Your task to perform on an android device: check data usage Image 0: 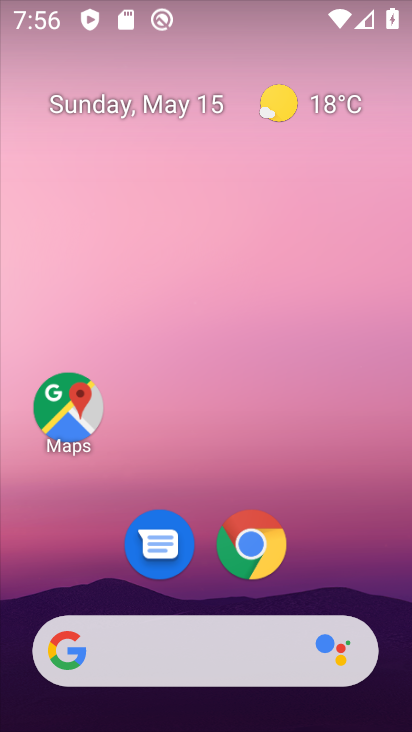
Step 0: drag from (357, 573) to (298, 98)
Your task to perform on an android device: check data usage Image 1: 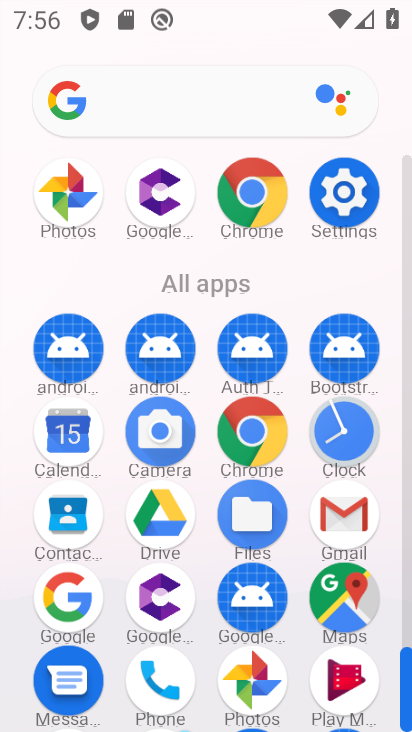
Step 1: click (317, 188)
Your task to perform on an android device: check data usage Image 2: 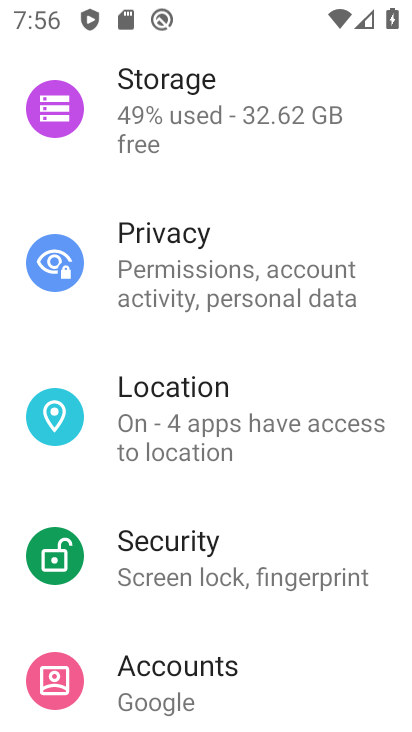
Step 2: drag from (275, 232) to (276, 540)
Your task to perform on an android device: check data usage Image 3: 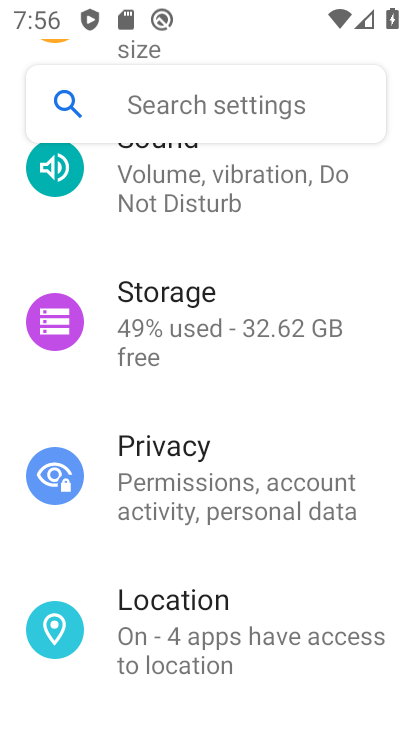
Step 3: drag from (235, 213) to (246, 623)
Your task to perform on an android device: check data usage Image 4: 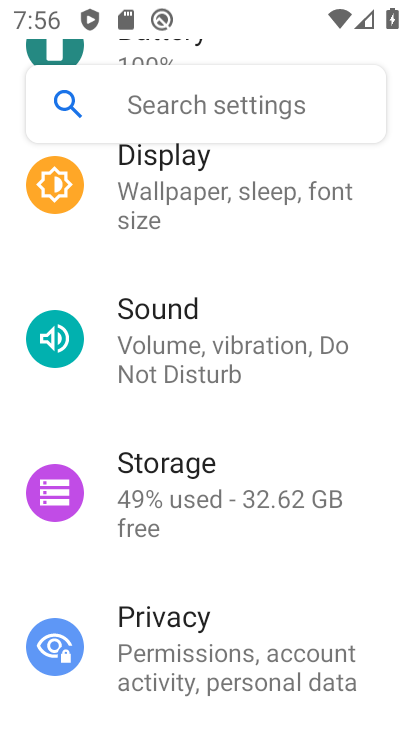
Step 4: drag from (361, 265) to (322, 573)
Your task to perform on an android device: check data usage Image 5: 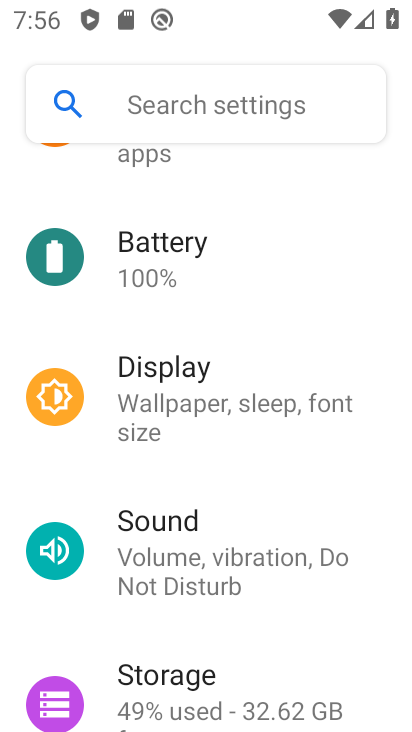
Step 5: drag from (253, 189) to (284, 668)
Your task to perform on an android device: check data usage Image 6: 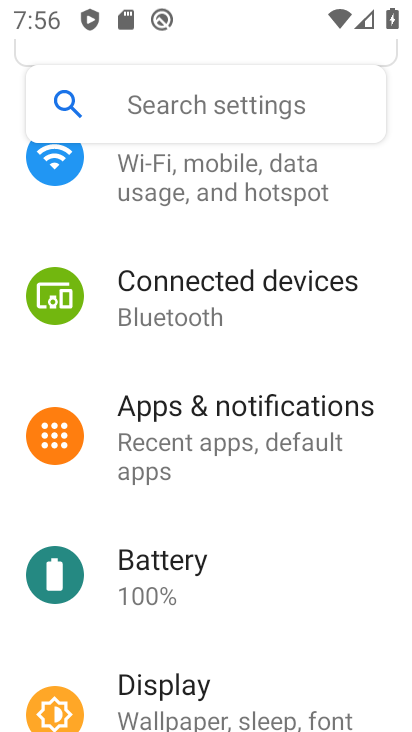
Step 6: click (223, 158)
Your task to perform on an android device: check data usage Image 7: 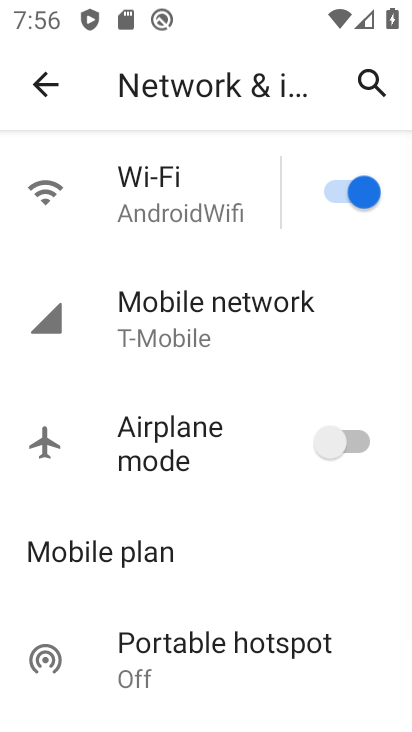
Step 7: click (215, 327)
Your task to perform on an android device: check data usage Image 8: 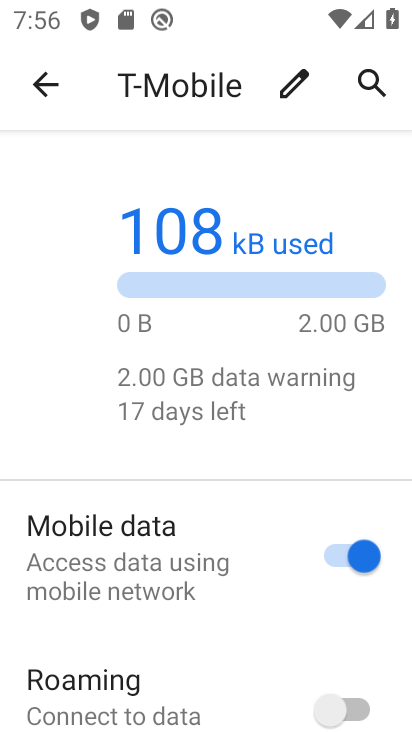
Step 8: drag from (252, 609) to (224, 213)
Your task to perform on an android device: check data usage Image 9: 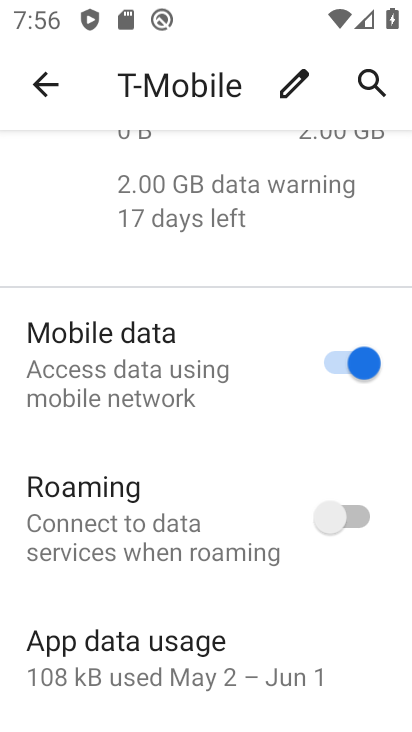
Step 9: click (191, 673)
Your task to perform on an android device: check data usage Image 10: 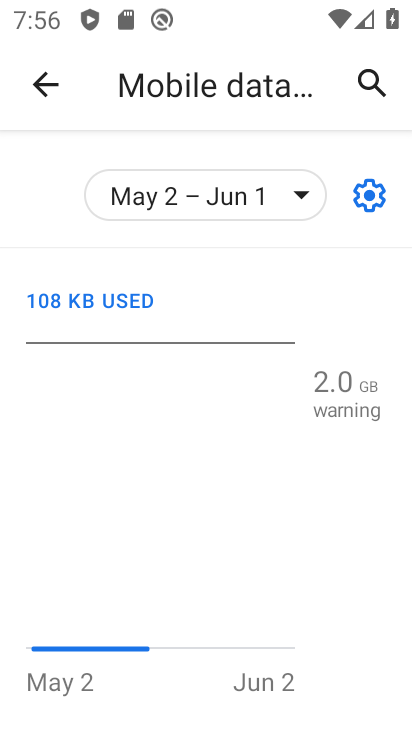
Step 10: task complete